Your task to perform on an android device: turn on data saver in the chrome app Image 0: 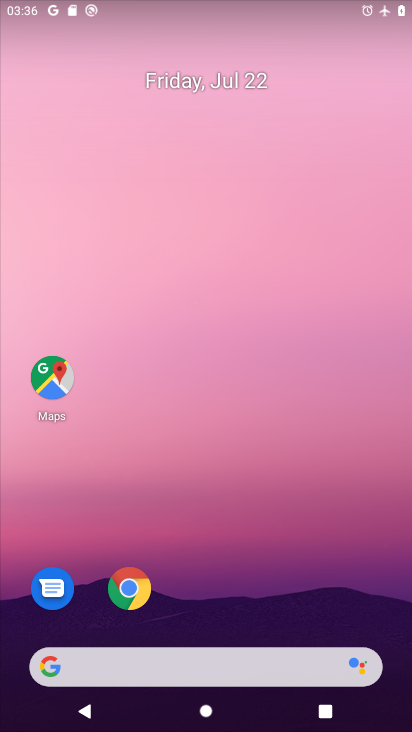
Step 0: drag from (263, 600) to (252, 35)
Your task to perform on an android device: turn on data saver in the chrome app Image 1: 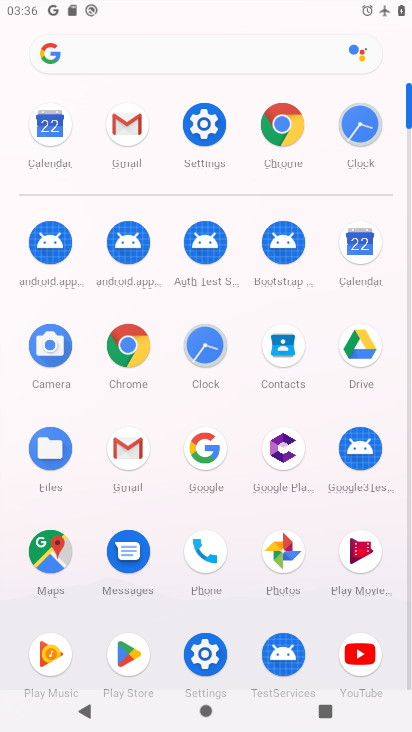
Step 1: click (130, 355)
Your task to perform on an android device: turn on data saver in the chrome app Image 2: 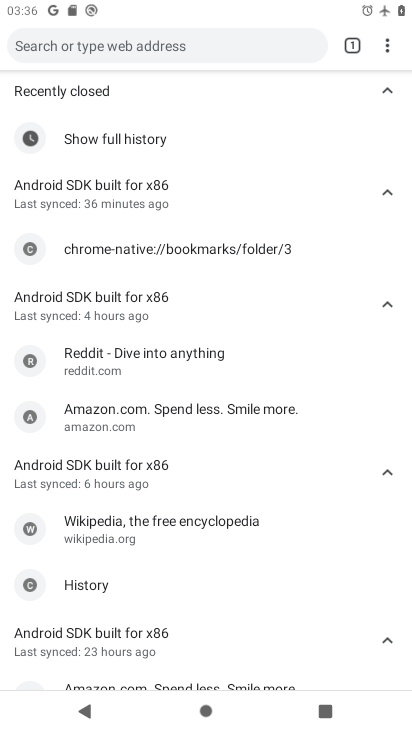
Step 2: drag from (382, 42) to (215, 381)
Your task to perform on an android device: turn on data saver in the chrome app Image 3: 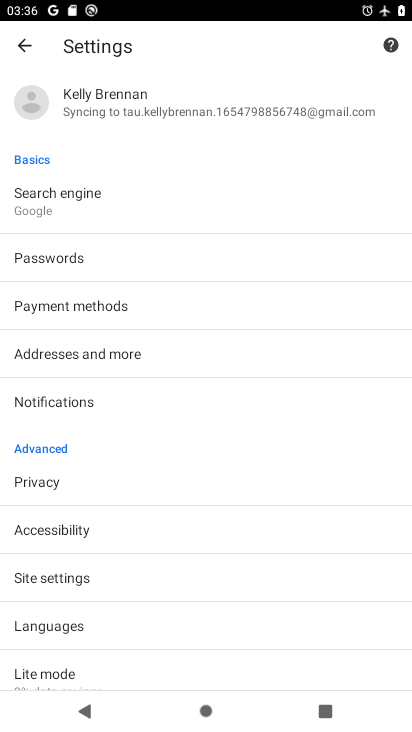
Step 3: click (26, 678)
Your task to perform on an android device: turn on data saver in the chrome app Image 4: 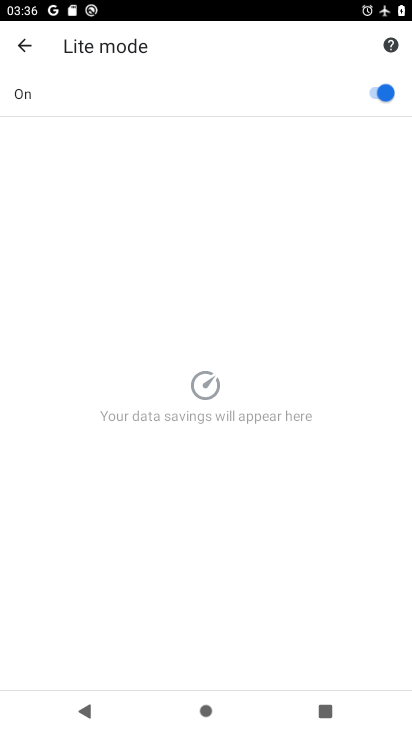
Step 4: task complete